Your task to perform on an android device: Check the latest toasters on Target. Image 0: 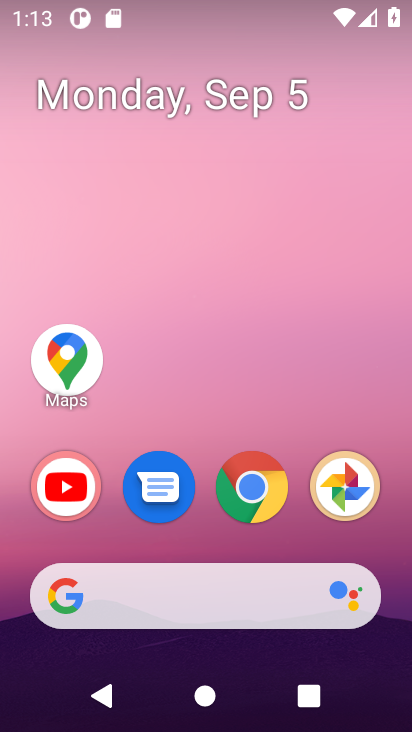
Step 0: click (251, 487)
Your task to perform on an android device: Check the latest toasters on Target. Image 1: 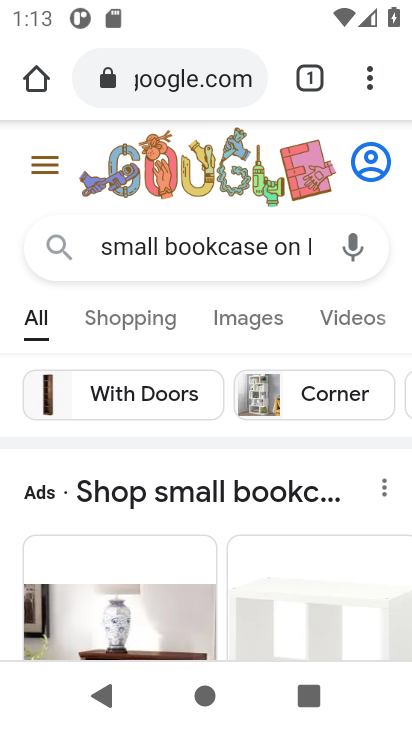
Step 1: click (185, 62)
Your task to perform on an android device: Check the latest toasters on Target. Image 2: 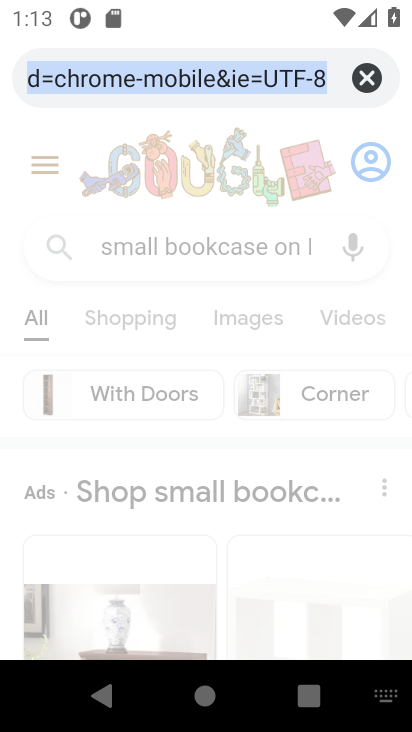
Step 2: click (368, 76)
Your task to perform on an android device: Check the latest toasters on Target. Image 3: 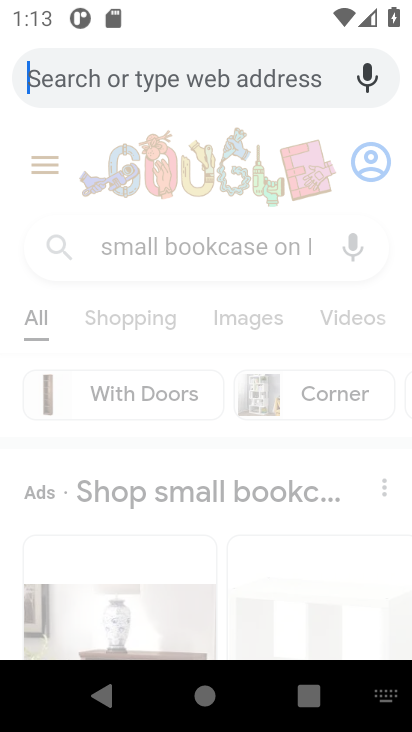
Step 3: type "the latest toasters on Target."
Your task to perform on an android device: Check the latest toasters on Target. Image 4: 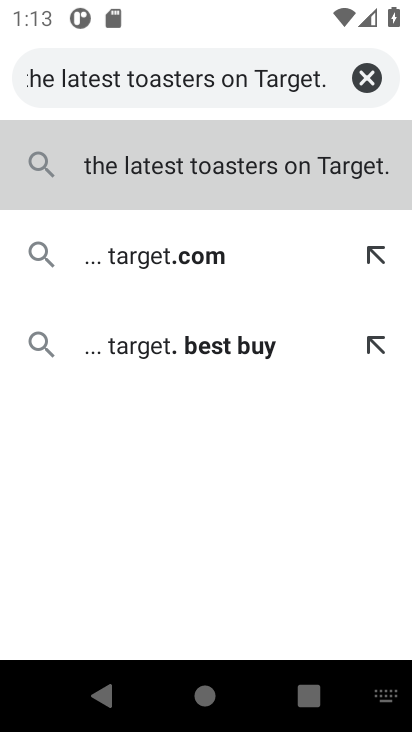
Step 4: click (238, 169)
Your task to perform on an android device: Check the latest toasters on Target. Image 5: 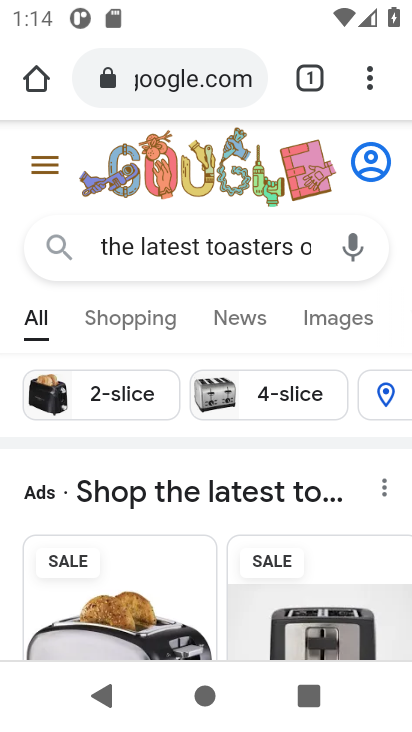
Step 5: task complete